Your task to perform on an android device: Open Google Chrome and open the bookmarks view Image 0: 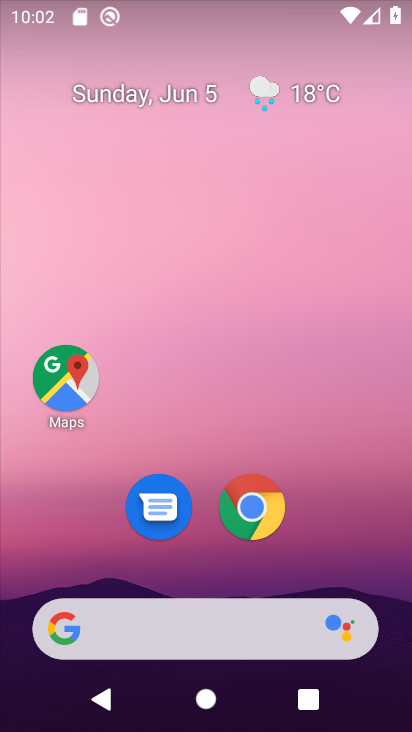
Step 0: click (274, 516)
Your task to perform on an android device: Open Google Chrome and open the bookmarks view Image 1: 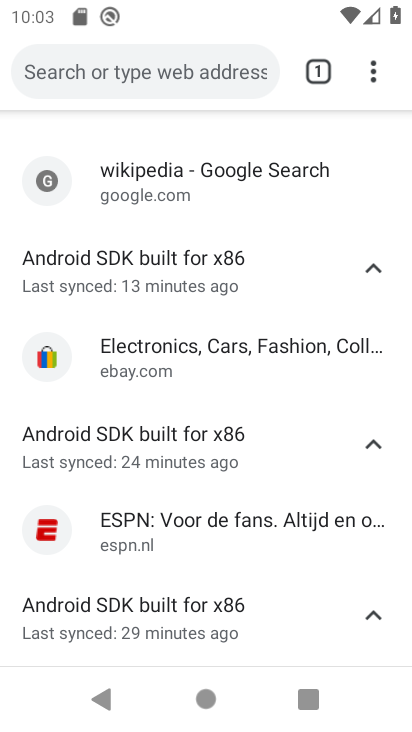
Step 1: click (371, 77)
Your task to perform on an android device: Open Google Chrome and open the bookmarks view Image 2: 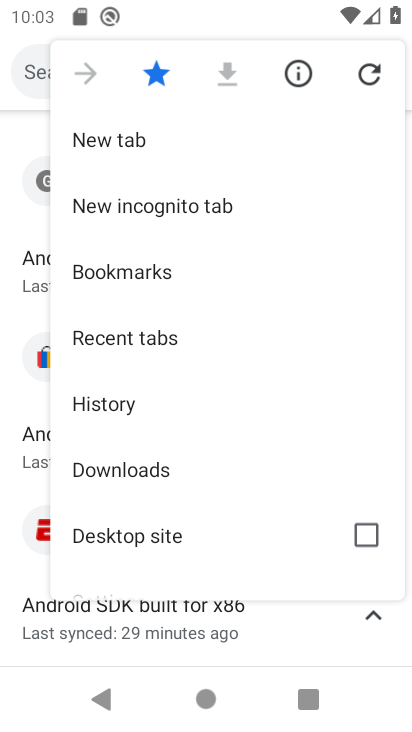
Step 2: drag from (127, 537) to (168, 348)
Your task to perform on an android device: Open Google Chrome and open the bookmarks view Image 3: 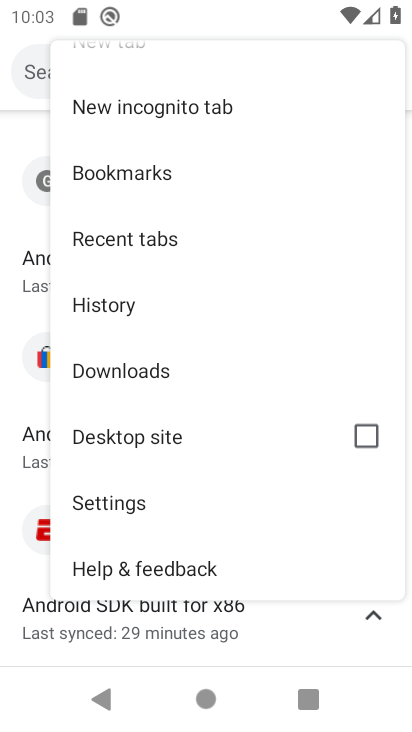
Step 3: click (110, 510)
Your task to perform on an android device: Open Google Chrome and open the bookmarks view Image 4: 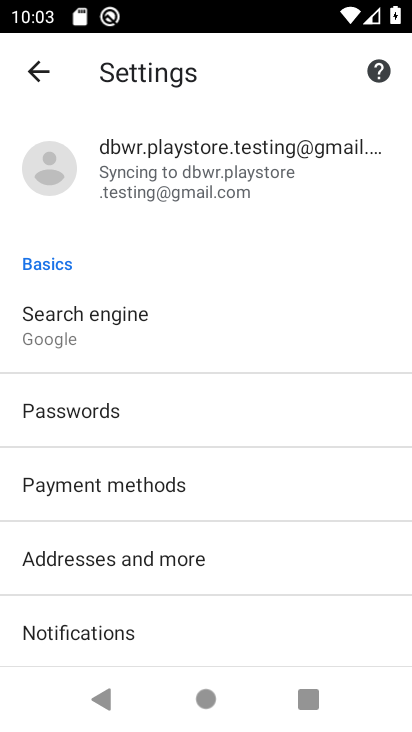
Step 4: task complete